Your task to perform on an android device: Go to notification settings Image 0: 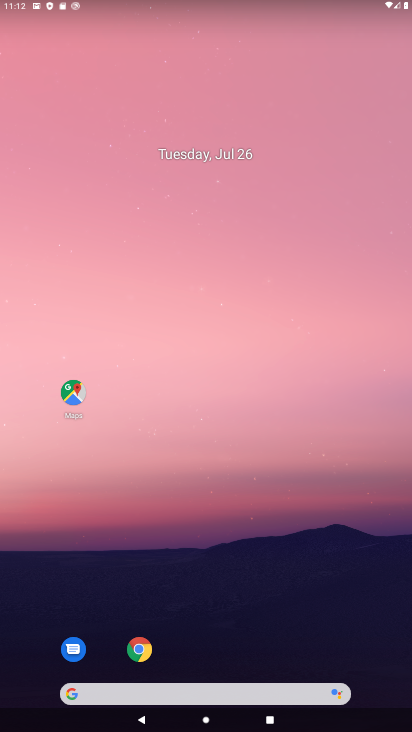
Step 0: drag from (203, 680) to (120, 180)
Your task to perform on an android device: Go to notification settings Image 1: 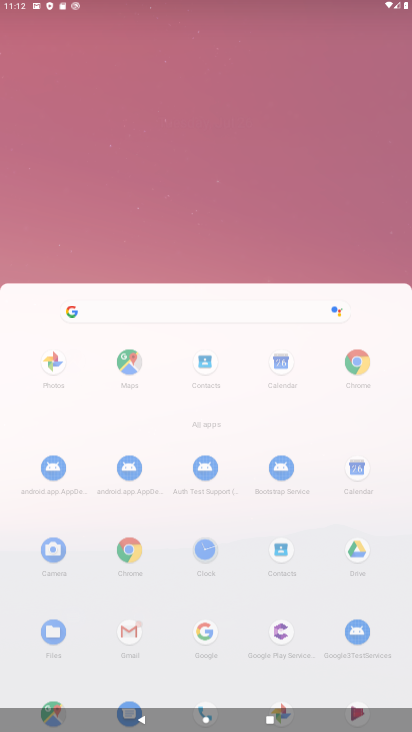
Step 1: drag from (216, 571) to (222, 138)
Your task to perform on an android device: Go to notification settings Image 2: 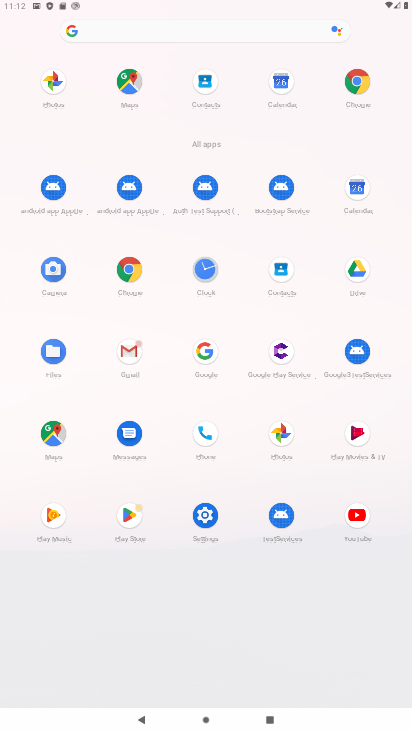
Step 2: drag from (251, 502) to (251, 211)
Your task to perform on an android device: Go to notification settings Image 3: 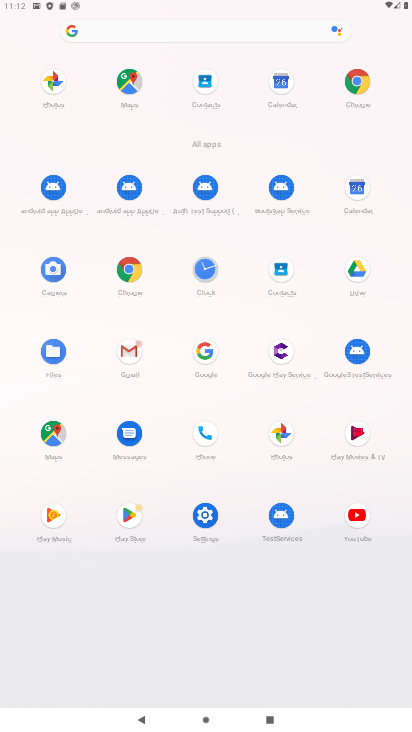
Step 3: click (207, 508)
Your task to perform on an android device: Go to notification settings Image 4: 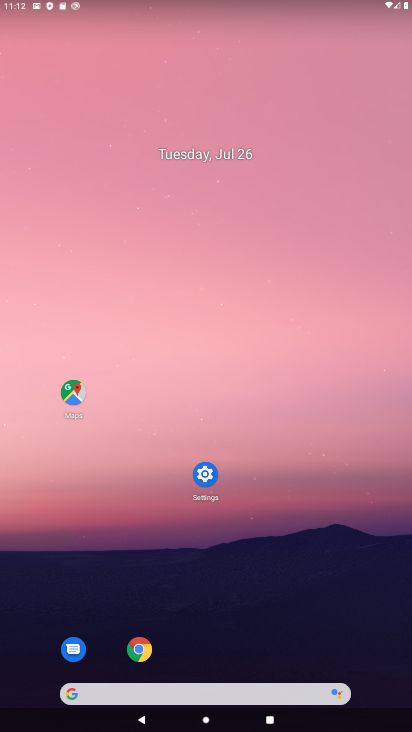
Step 4: drag from (236, 590) to (178, 151)
Your task to perform on an android device: Go to notification settings Image 5: 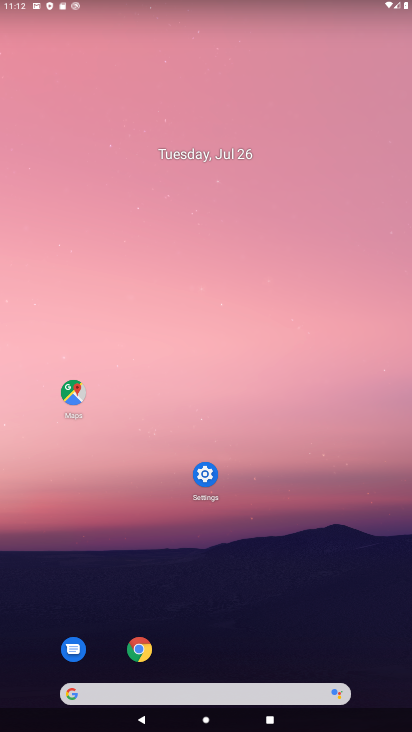
Step 5: drag from (249, 625) to (182, 112)
Your task to perform on an android device: Go to notification settings Image 6: 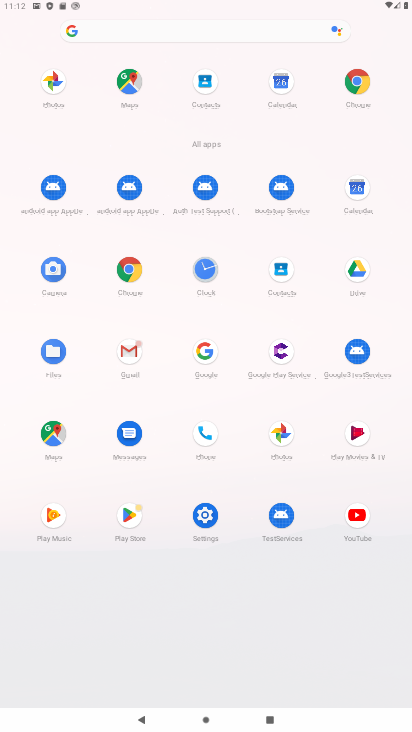
Step 6: drag from (254, 449) to (235, 126)
Your task to perform on an android device: Go to notification settings Image 7: 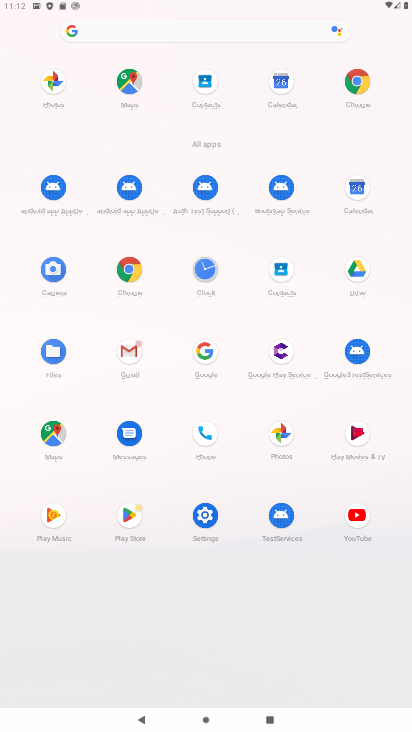
Step 7: click (199, 510)
Your task to perform on an android device: Go to notification settings Image 8: 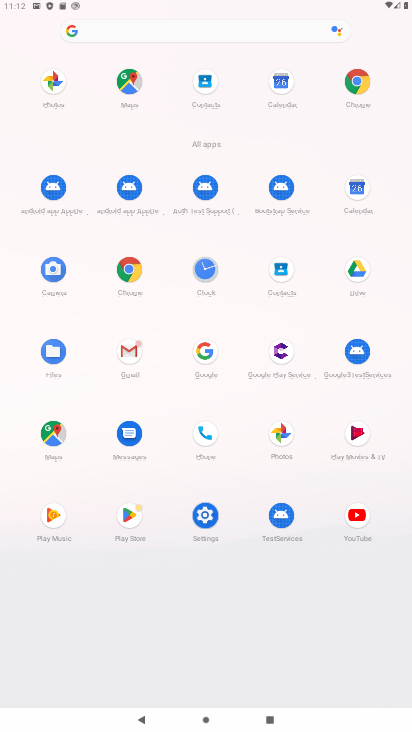
Step 8: click (202, 510)
Your task to perform on an android device: Go to notification settings Image 9: 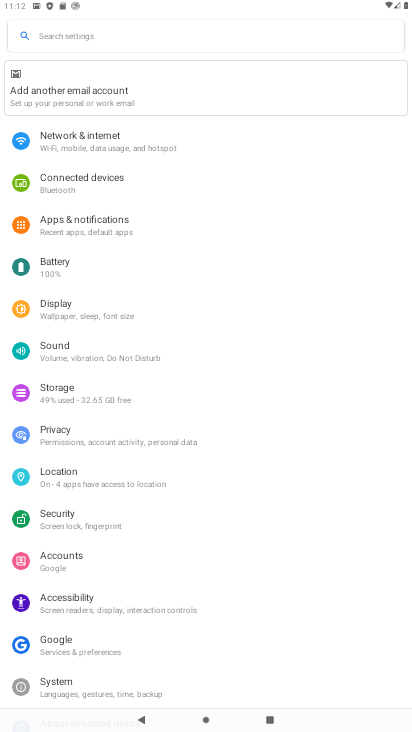
Step 9: click (86, 197)
Your task to perform on an android device: Go to notification settings Image 10: 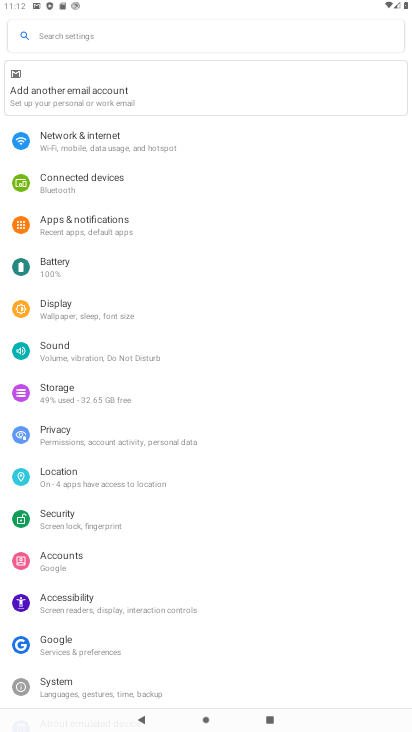
Step 10: click (84, 206)
Your task to perform on an android device: Go to notification settings Image 11: 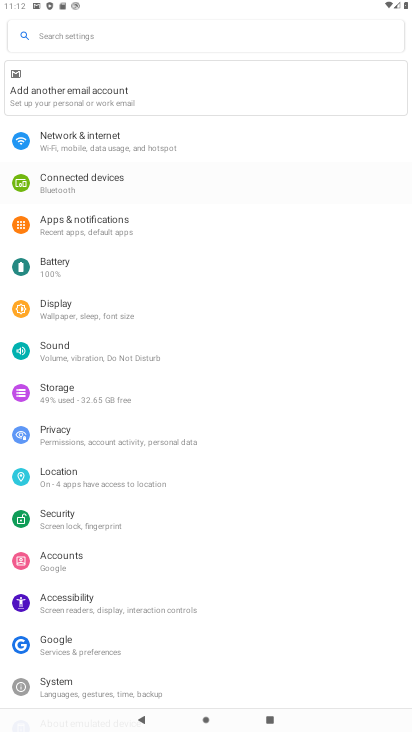
Step 11: click (84, 208)
Your task to perform on an android device: Go to notification settings Image 12: 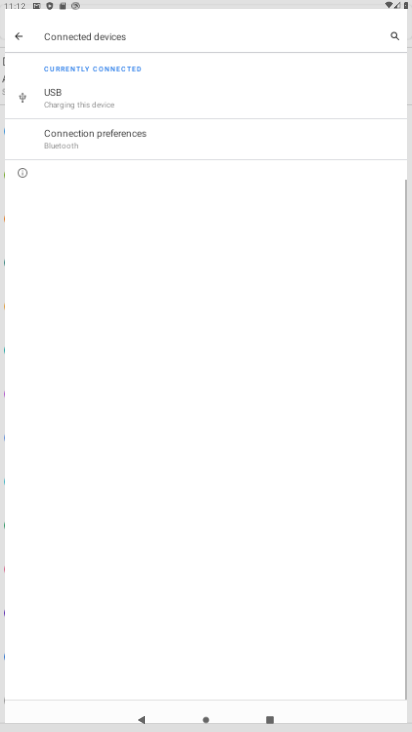
Step 12: click (83, 213)
Your task to perform on an android device: Go to notification settings Image 13: 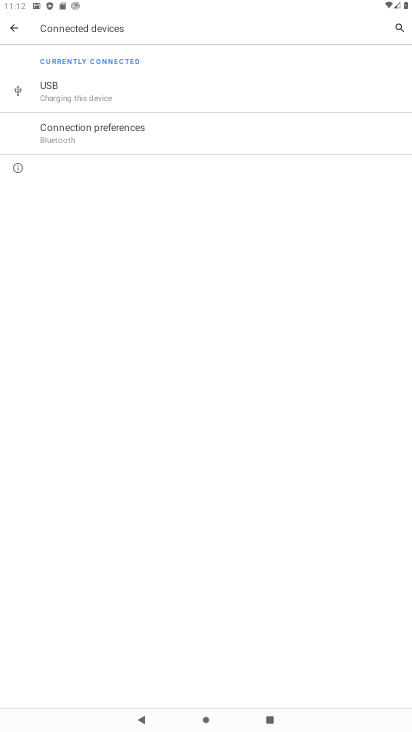
Step 13: click (12, 29)
Your task to perform on an android device: Go to notification settings Image 14: 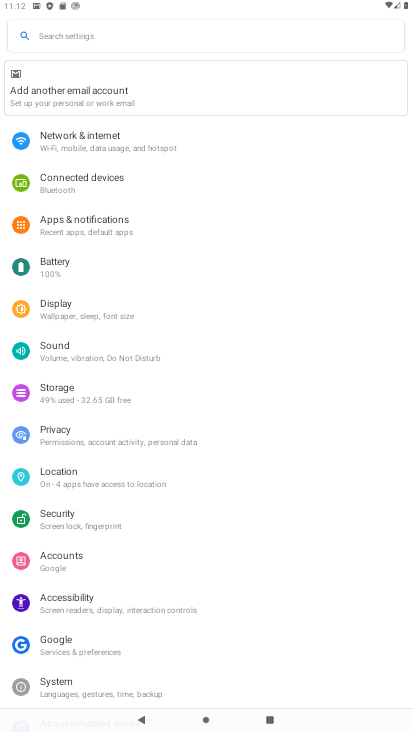
Step 14: click (83, 227)
Your task to perform on an android device: Go to notification settings Image 15: 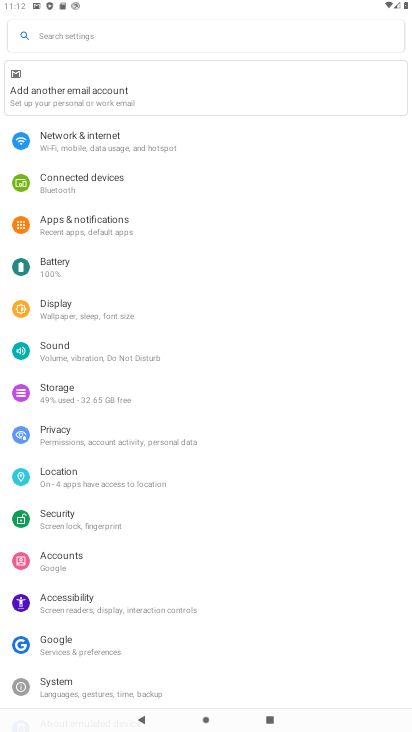
Step 15: click (86, 228)
Your task to perform on an android device: Go to notification settings Image 16: 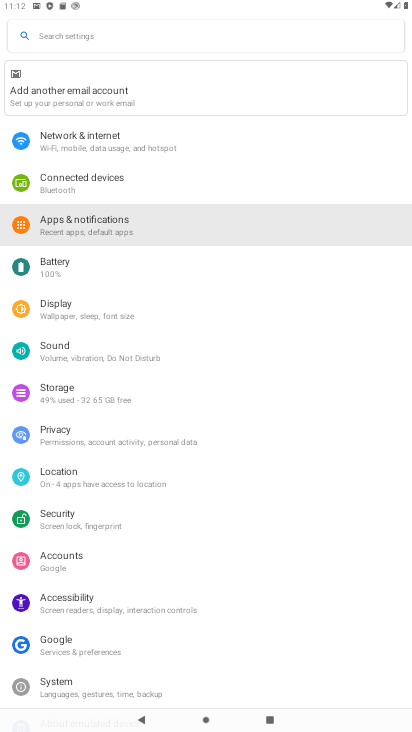
Step 16: click (87, 231)
Your task to perform on an android device: Go to notification settings Image 17: 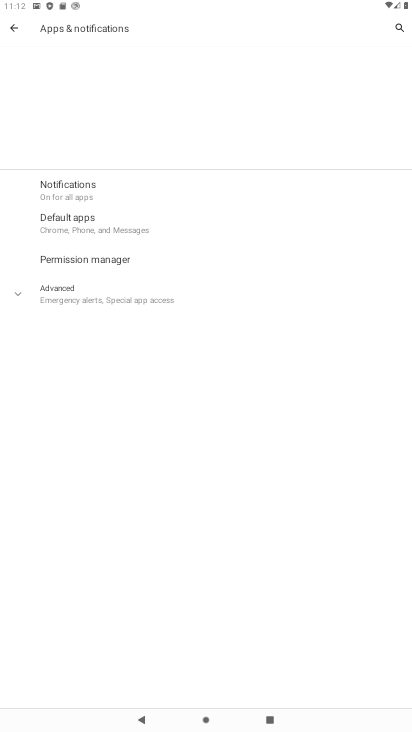
Step 17: click (86, 230)
Your task to perform on an android device: Go to notification settings Image 18: 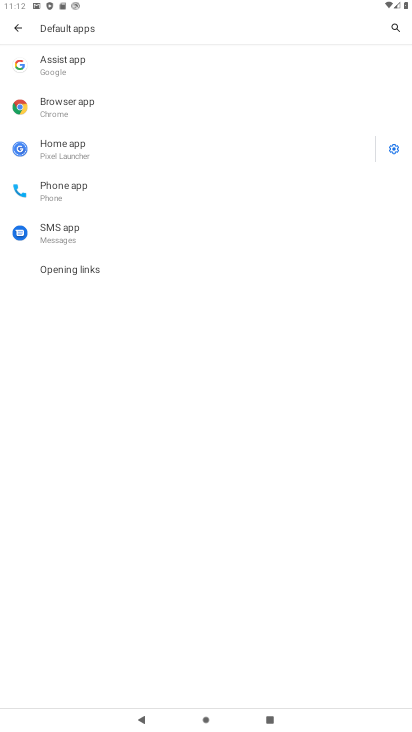
Step 18: task complete